Your task to perform on an android device: Open internet settings Image 0: 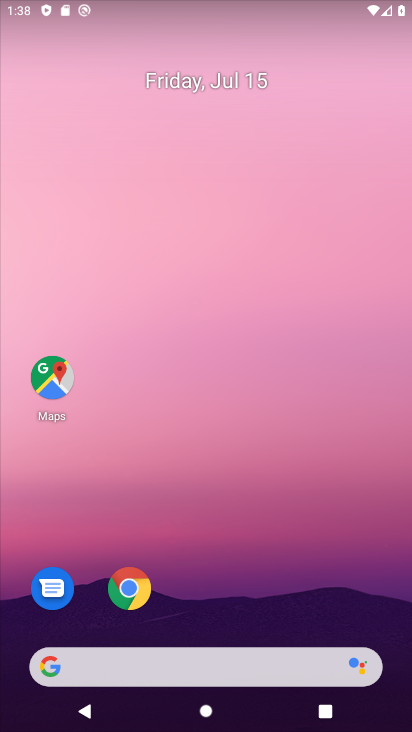
Step 0: drag from (198, 582) to (293, 0)
Your task to perform on an android device: Open internet settings Image 1: 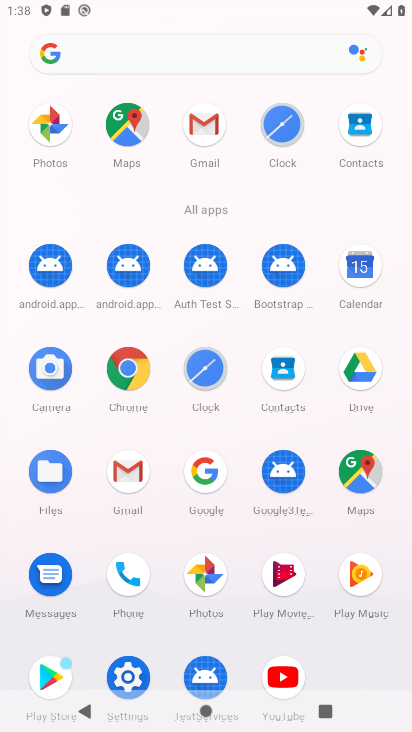
Step 1: click (121, 677)
Your task to perform on an android device: Open internet settings Image 2: 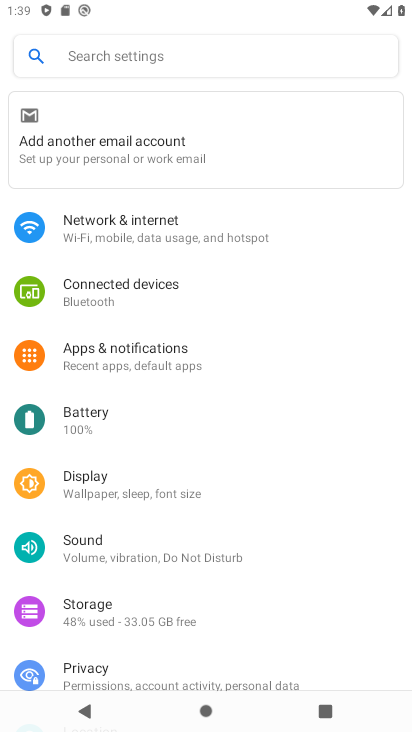
Step 2: click (155, 226)
Your task to perform on an android device: Open internet settings Image 3: 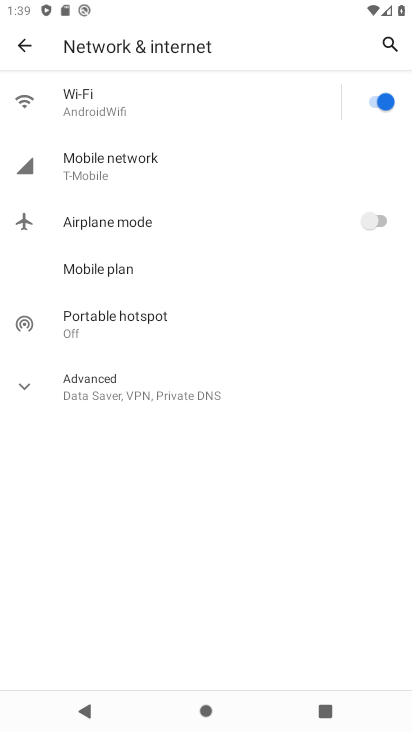
Step 3: task complete